Your task to perform on an android device: Clear the shopping cart on ebay. Search for duracell triple a on ebay, select the first entry, add it to the cart, then select checkout. Image 0: 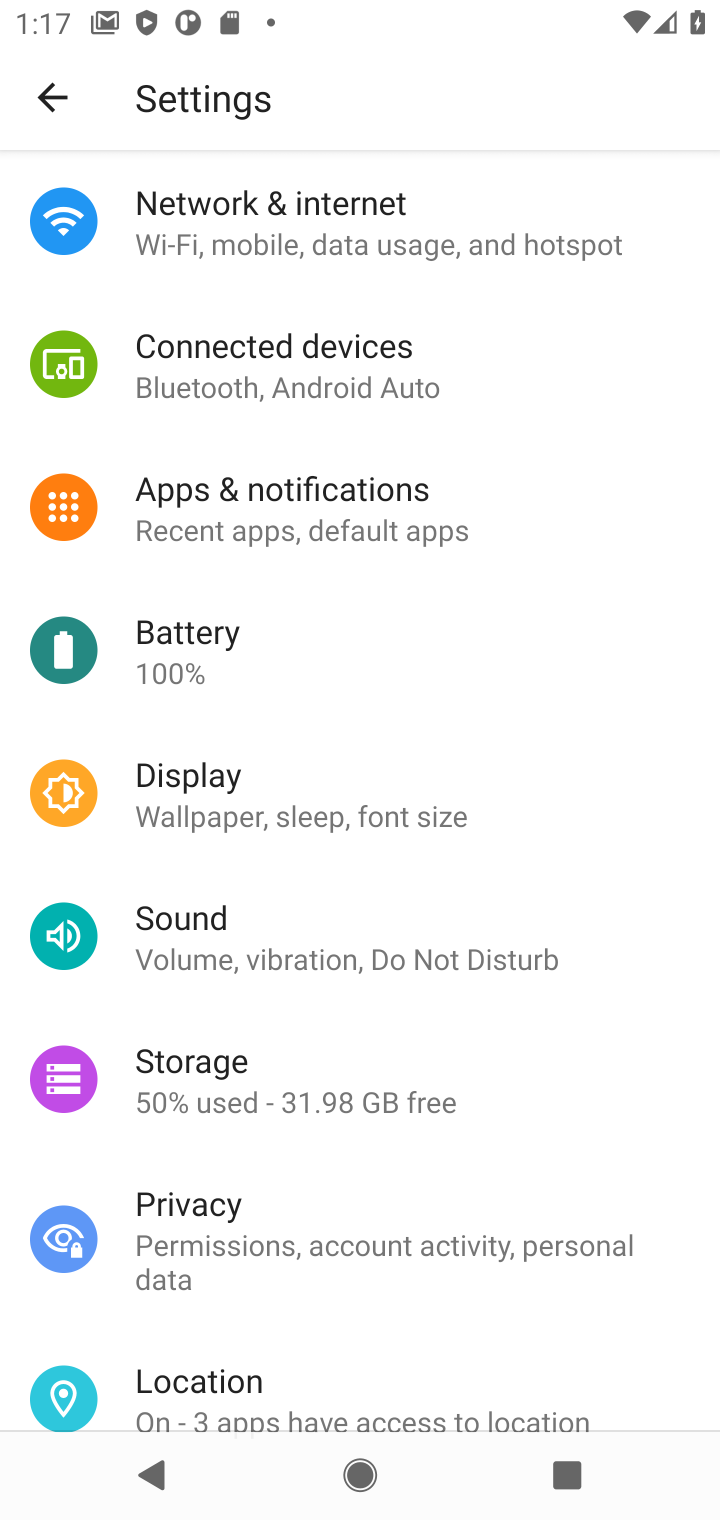
Step 0: press home button
Your task to perform on an android device: Clear the shopping cart on ebay. Search for duracell triple a on ebay, select the first entry, add it to the cart, then select checkout. Image 1: 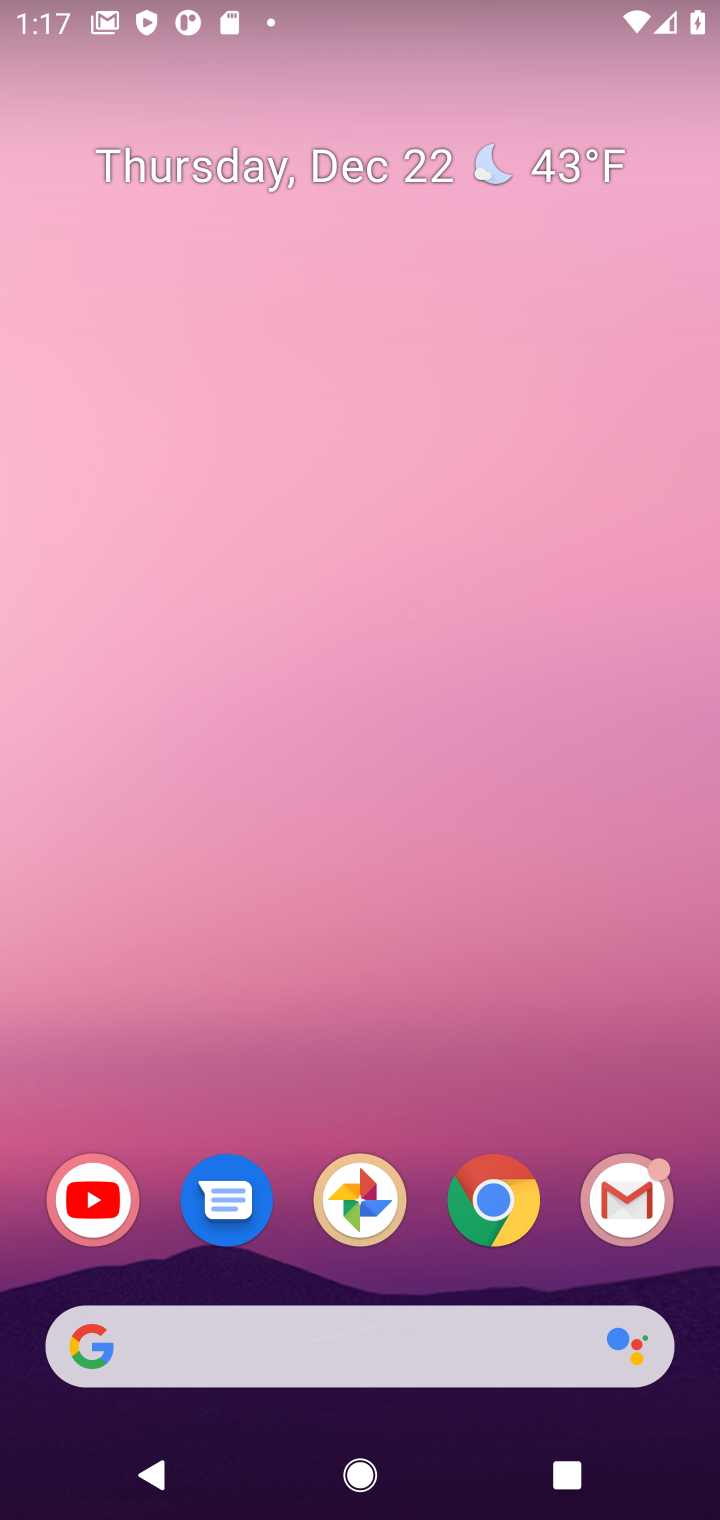
Step 1: click (486, 1217)
Your task to perform on an android device: Clear the shopping cart on ebay. Search for duracell triple a on ebay, select the first entry, add it to the cart, then select checkout. Image 2: 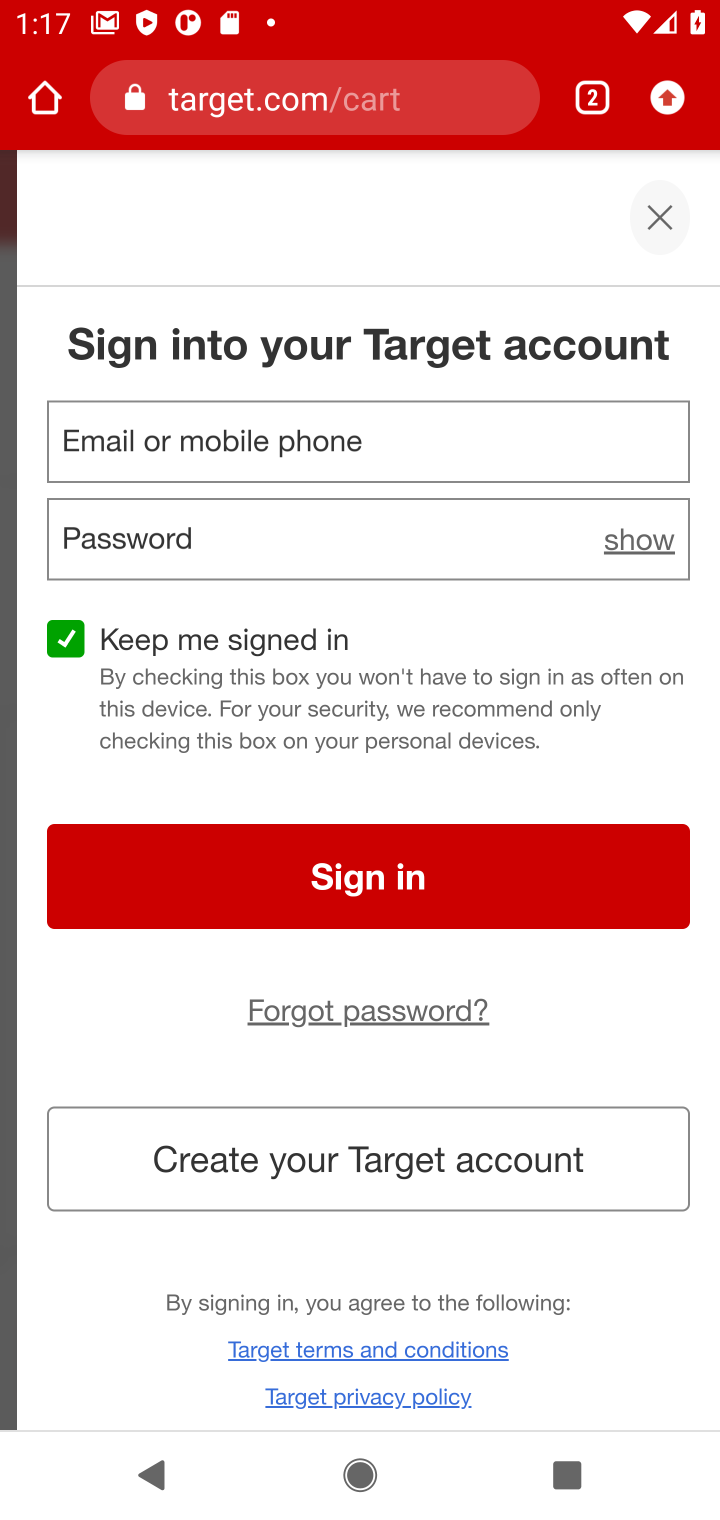
Step 2: click (264, 110)
Your task to perform on an android device: Clear the shopping cart on ebay. Search for duracell triple a on ebay, select the first entry, add it to the cart, then select checkout. Image 3: 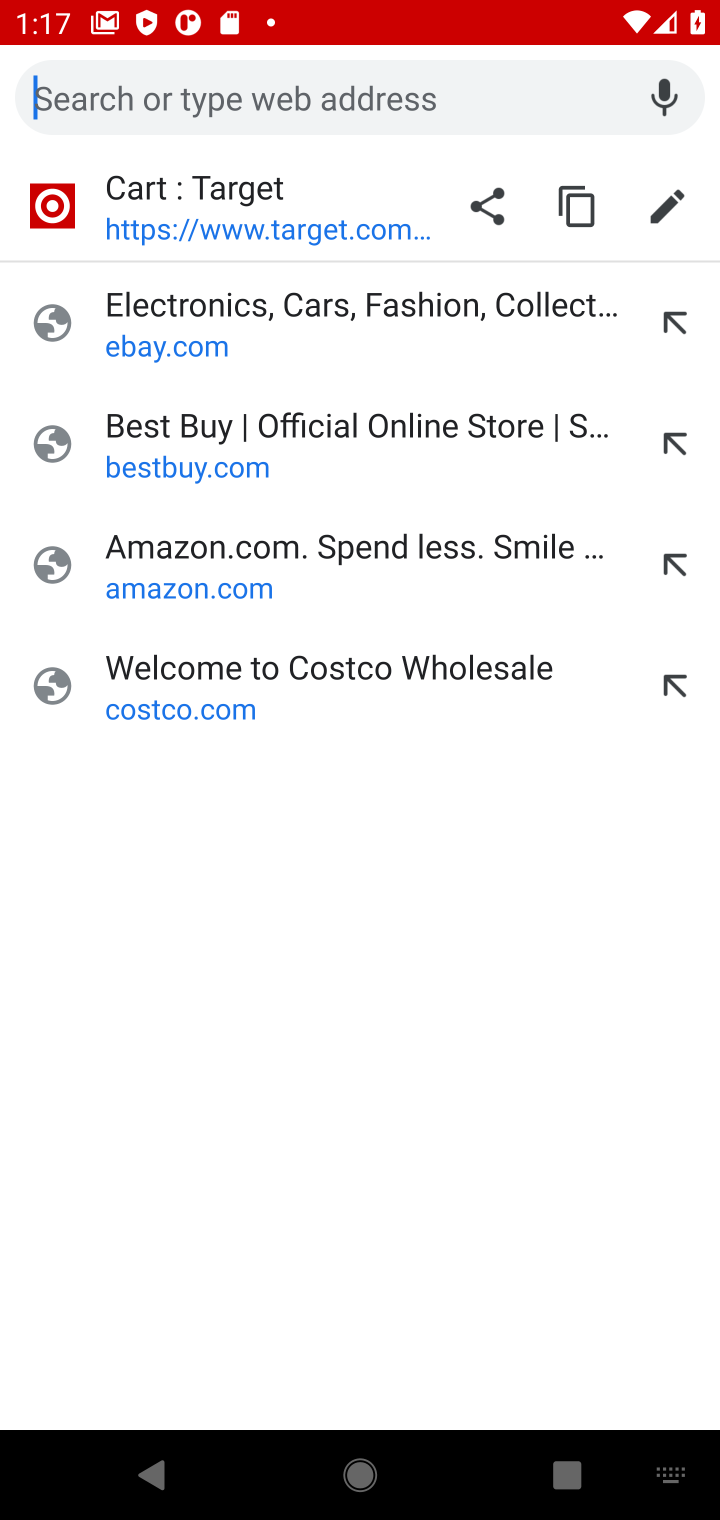
Step 3: click (151, 328)
Your task to perform on an android device: Clear the shopping cart on ebay. Search for duracell triple a on ebay, select the first entry, add it to the cart, then select checkout. Image 4: 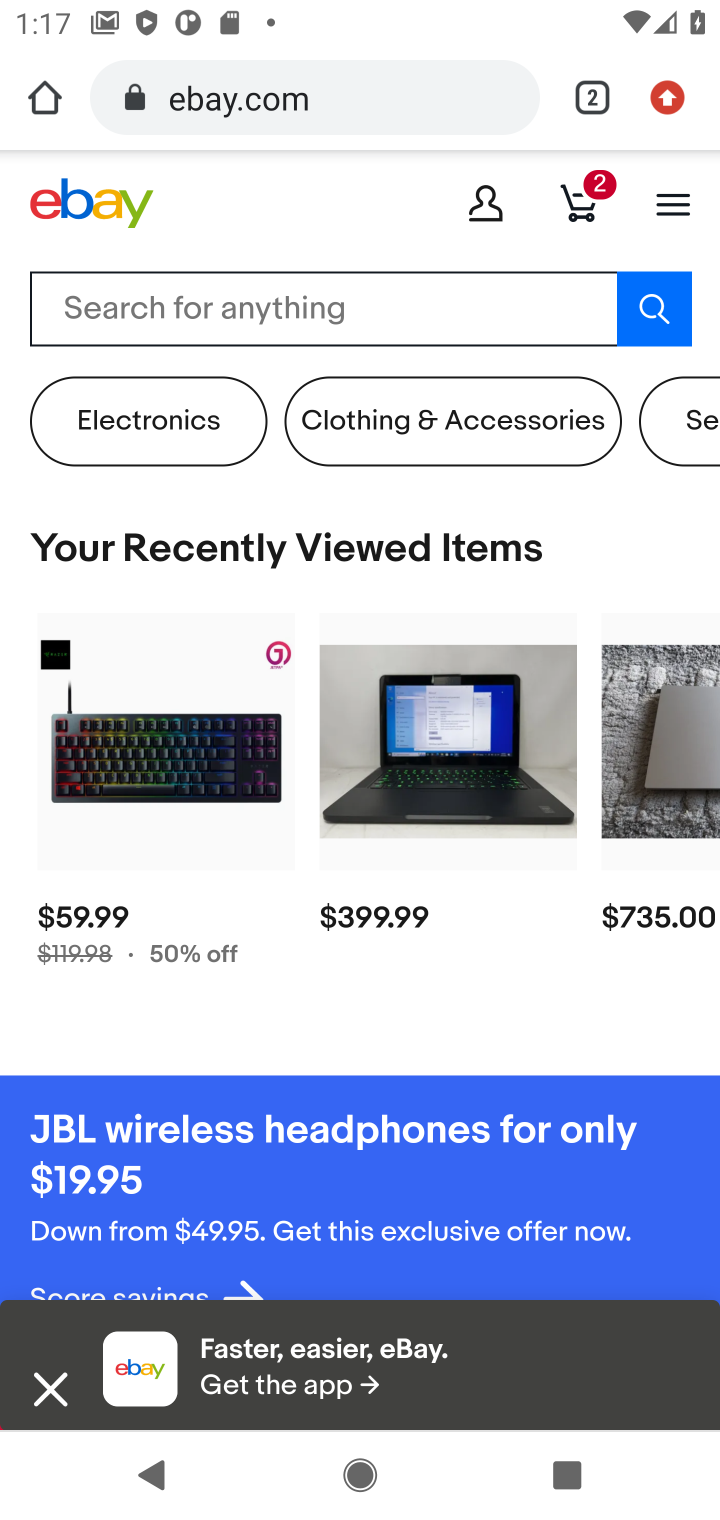
Step 4: click (589, 213)
Your task to perform on an android device: Clear the shopping cart on ebay. Search for duracell triple a on ebay, select the first entry, add it to the cart, then select checkout. Image 5: 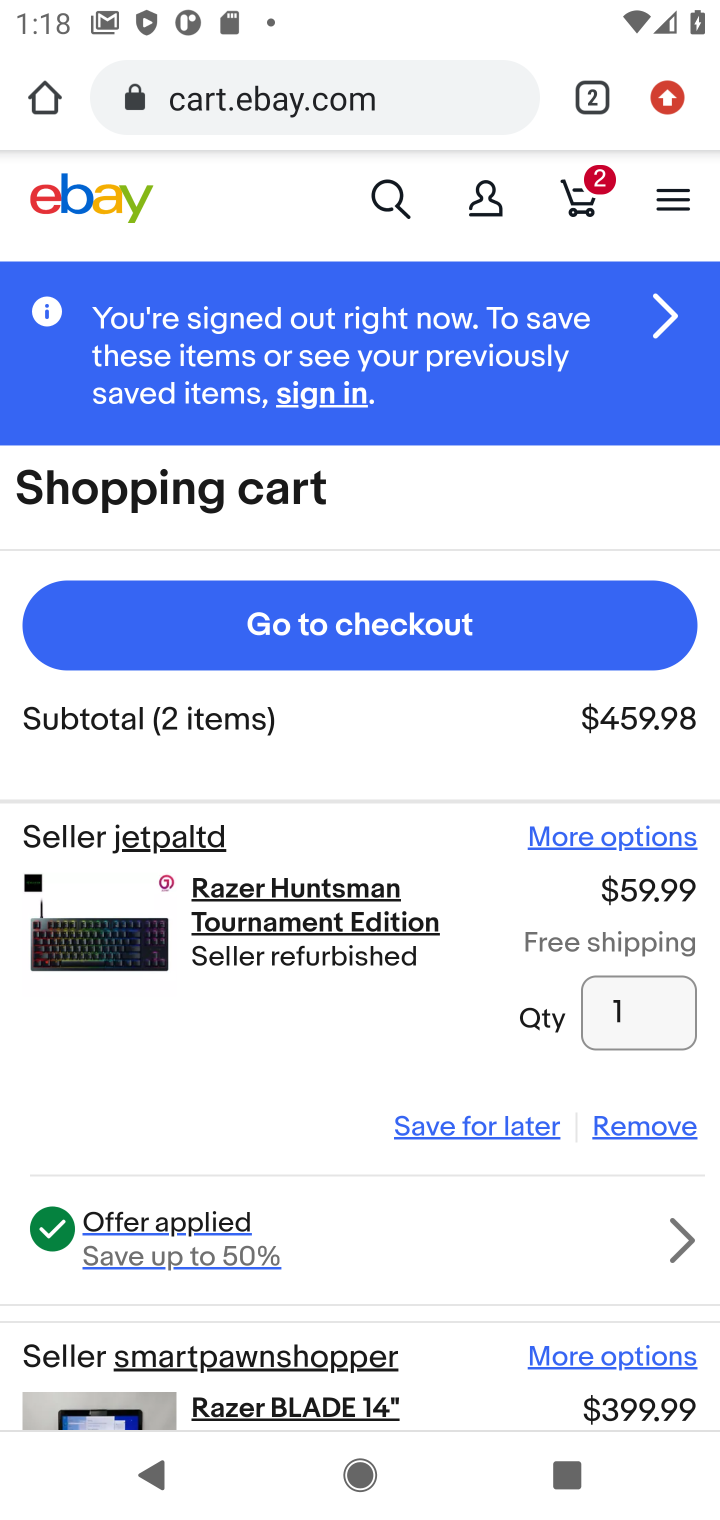
Step 5: click (615, 1125)
Your task to perform on an android device: Clear the shopping cart on ebay. Search for duracell triple a on ebay, select the first entry, add it to the cart, then select checkout. Image 6: 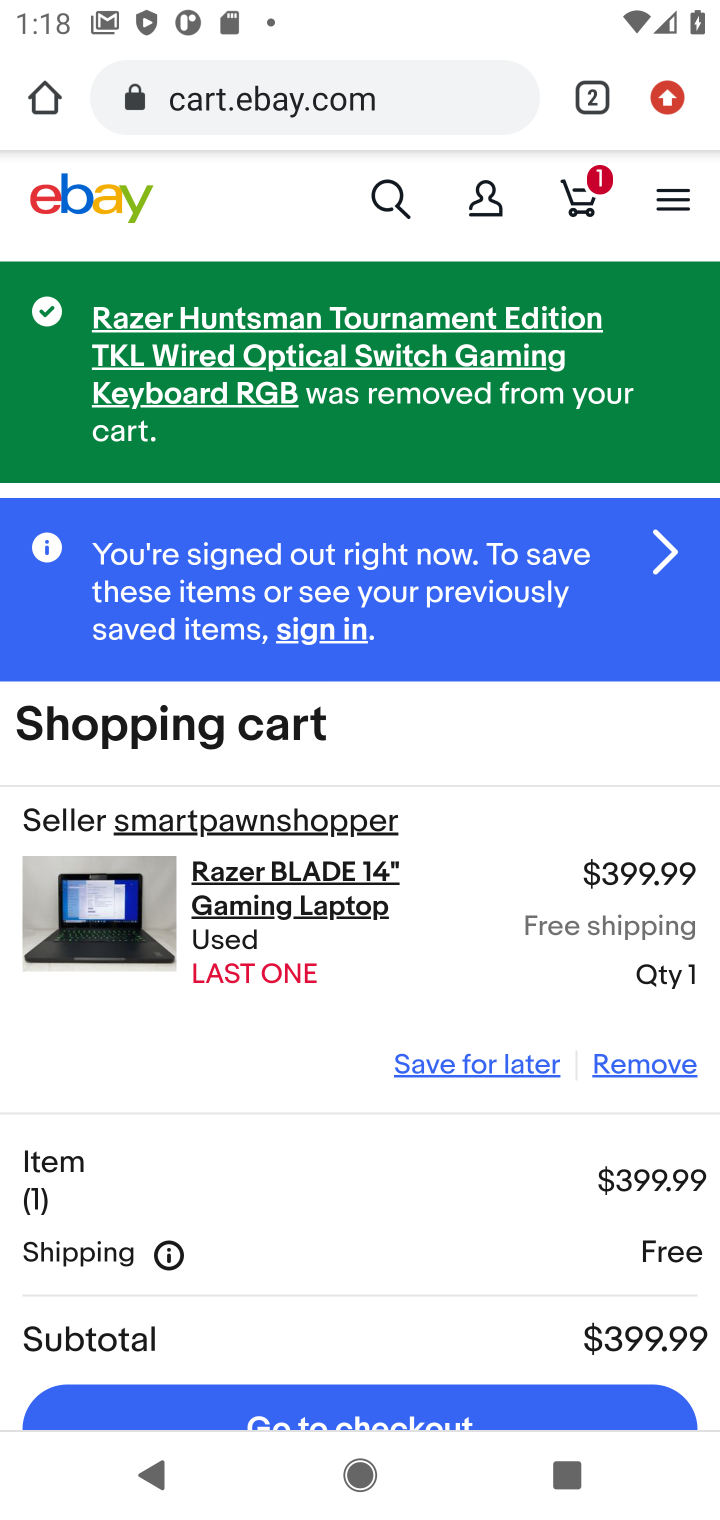
Step 6: click (630, 1071)
Your task to perform on an android device: Clear the shopping cart on ebay. Search for duracell triple a on ebay, select the first entry, add it to the cart, then select checkout. Image 7: 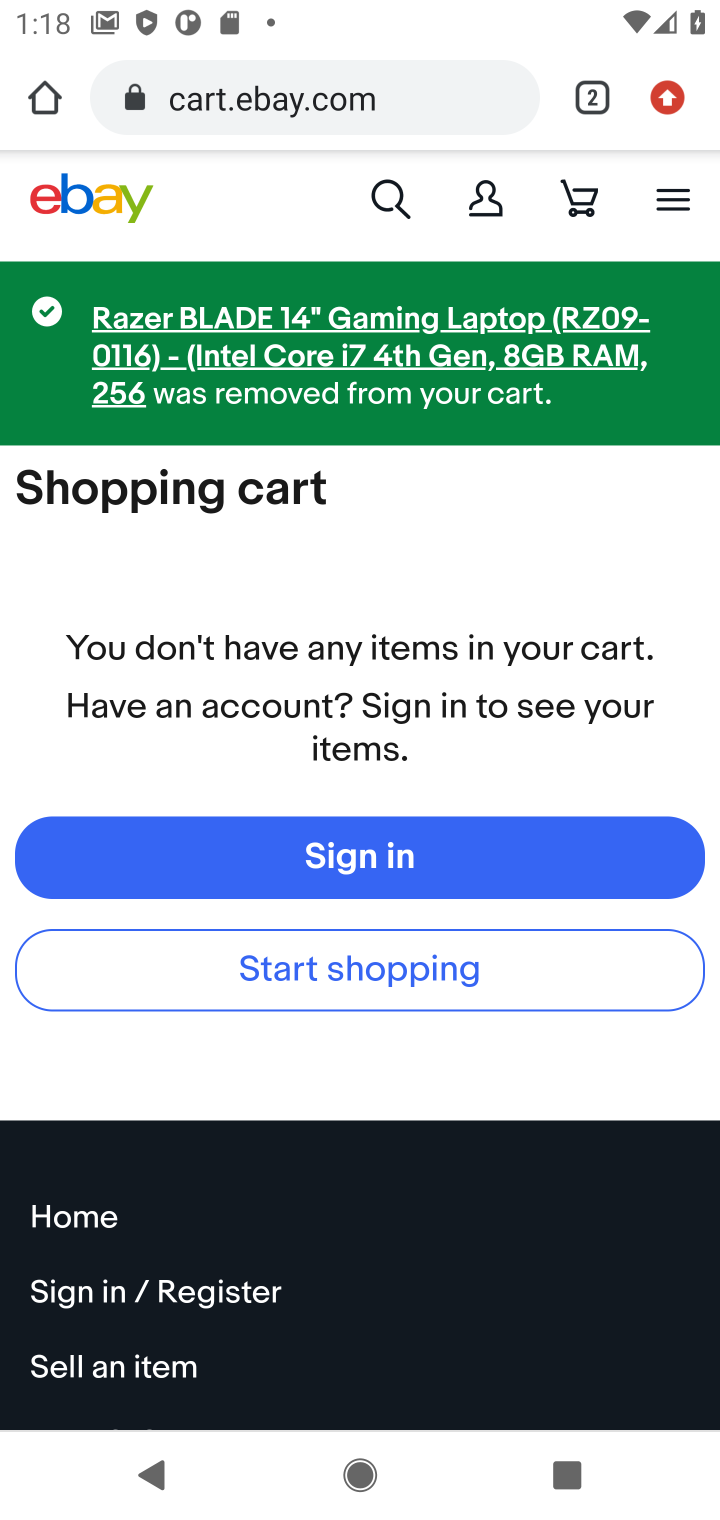
Step 7: click (392, 204)
Your task to perform on an android device: Clear the shopping cart on ebay. Search for duracell triple a on ebay, select the first entry, add it to the cart, then select checkout. Image 8: 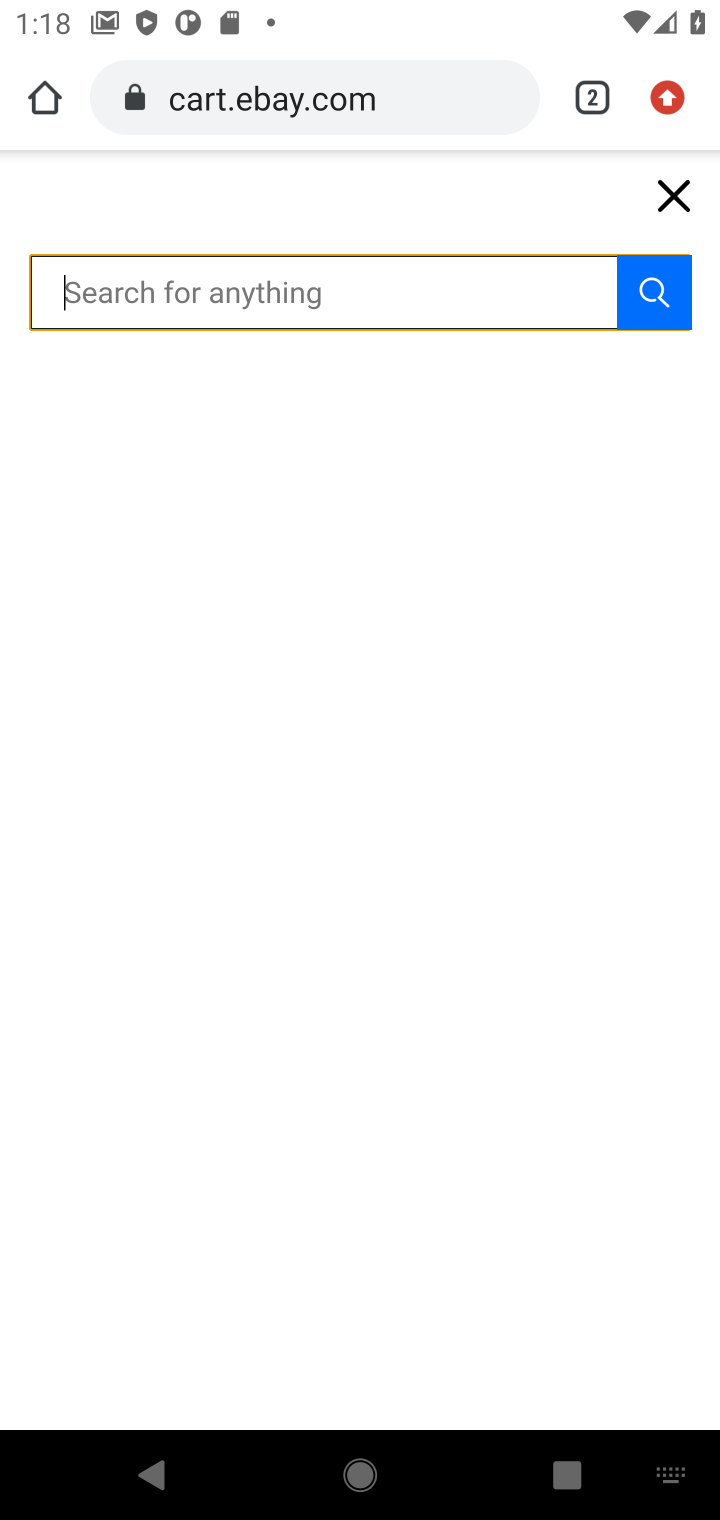
Step 8: type "duracell triple a"
Your task to perform on an android device: Clear the shopping cart on ebay. Search for duracell triple a on ebay, select the first entry, add it to the cart, then select checkout. Image 9: 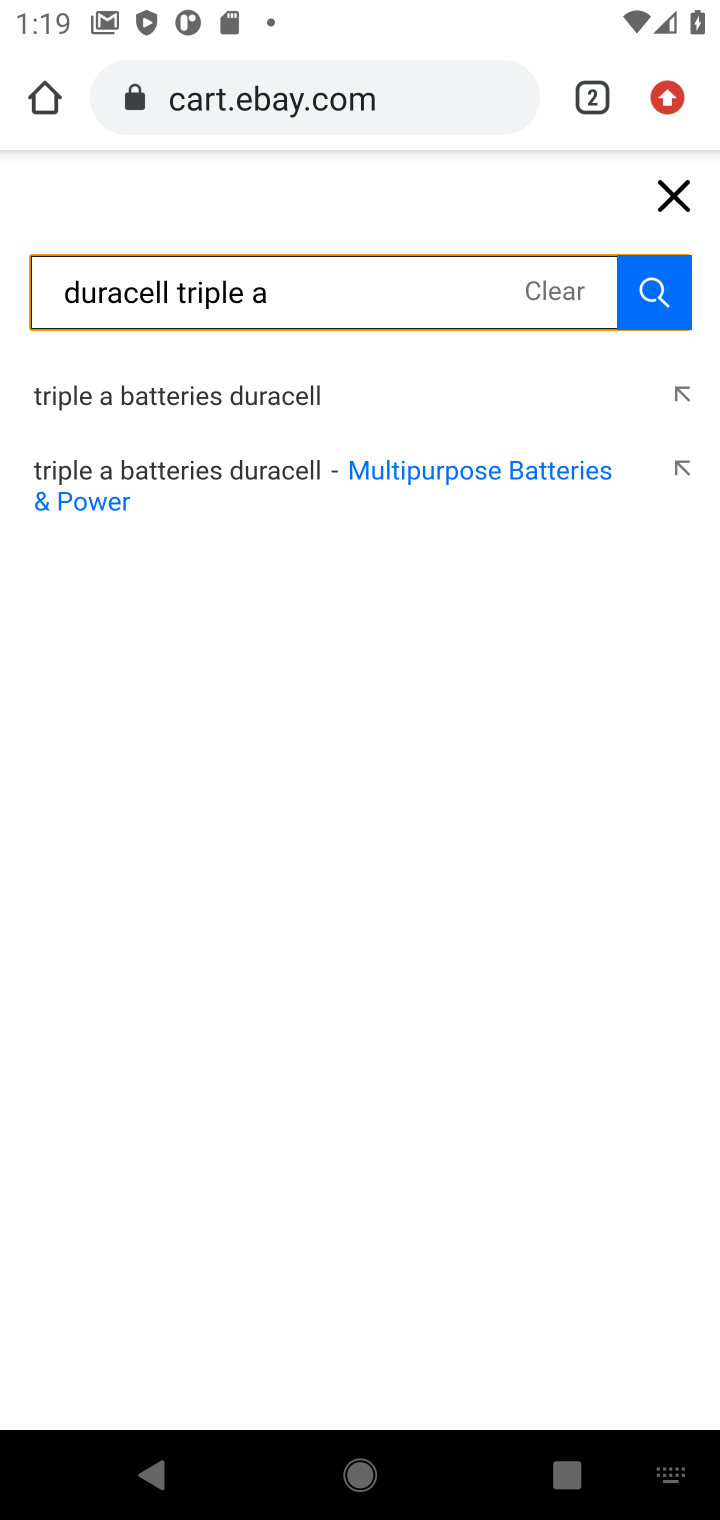
Step 9: click (654, 298)
Your task to perform on an android device: Clear the shopping cart on ebay. Search for duracell triple a on ebay, select the first entry, add it to the cart, then select checkout. Image 10: 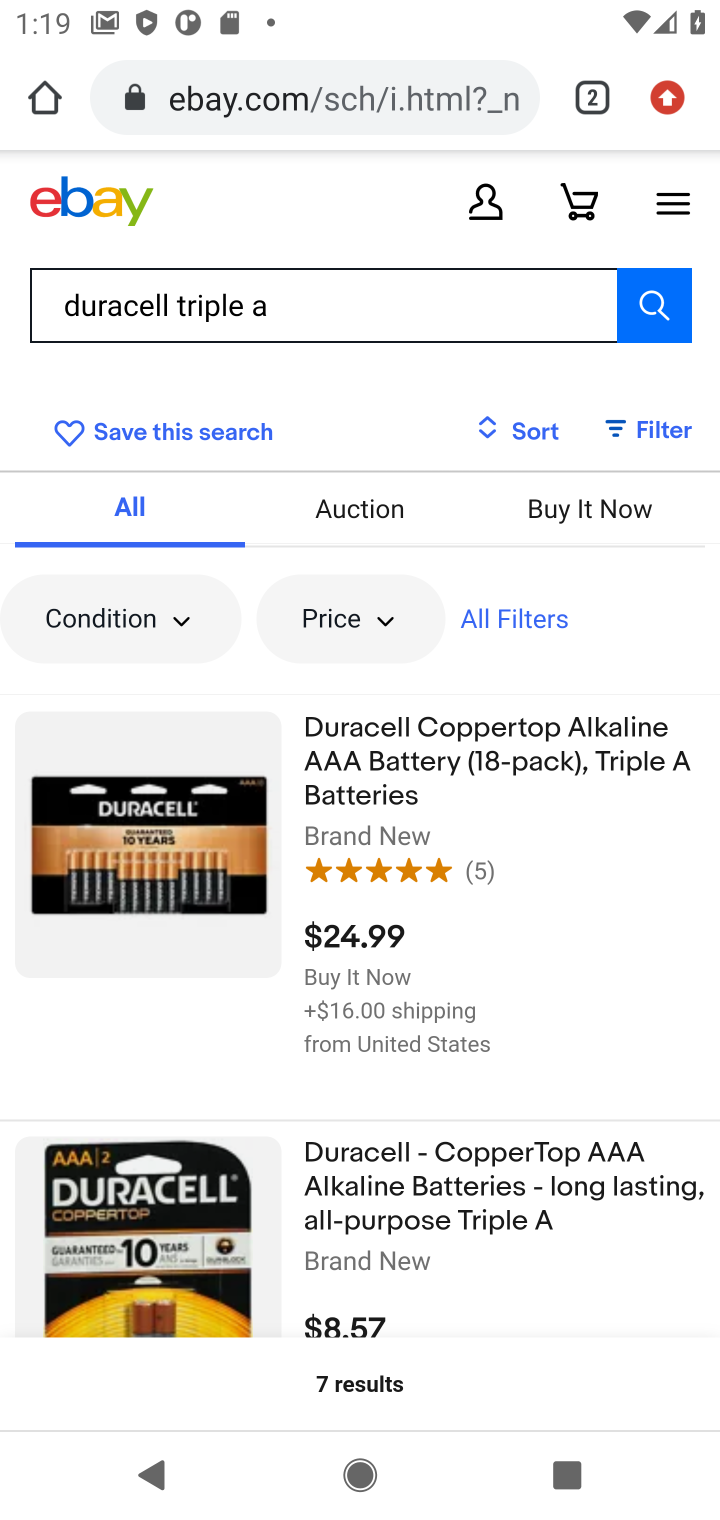
Step 10: click (354, 759)
Your task to perform on an android device: Clear the shopping cart on ebay. Search for duracell triple a on ebay, select the first entry, add it to the cart, then select checkout. Image 11: 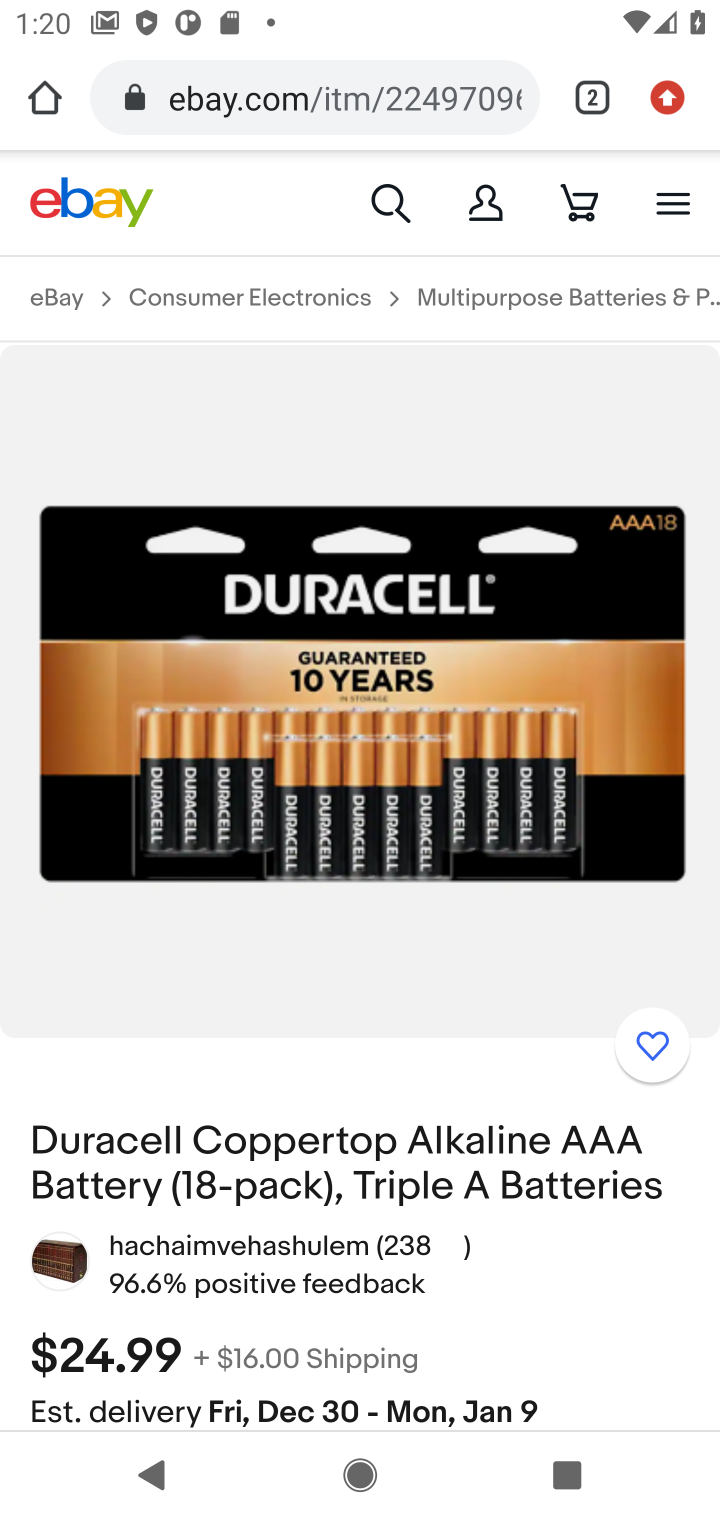
Step 11: drag from (310, 962) to (388, 362)
Your task to perform on an android device: Clear the shopping cart on ebay. Search for duracell triple a on ebay, select the first entry, add it to the cart, then select checkout. Image 12: 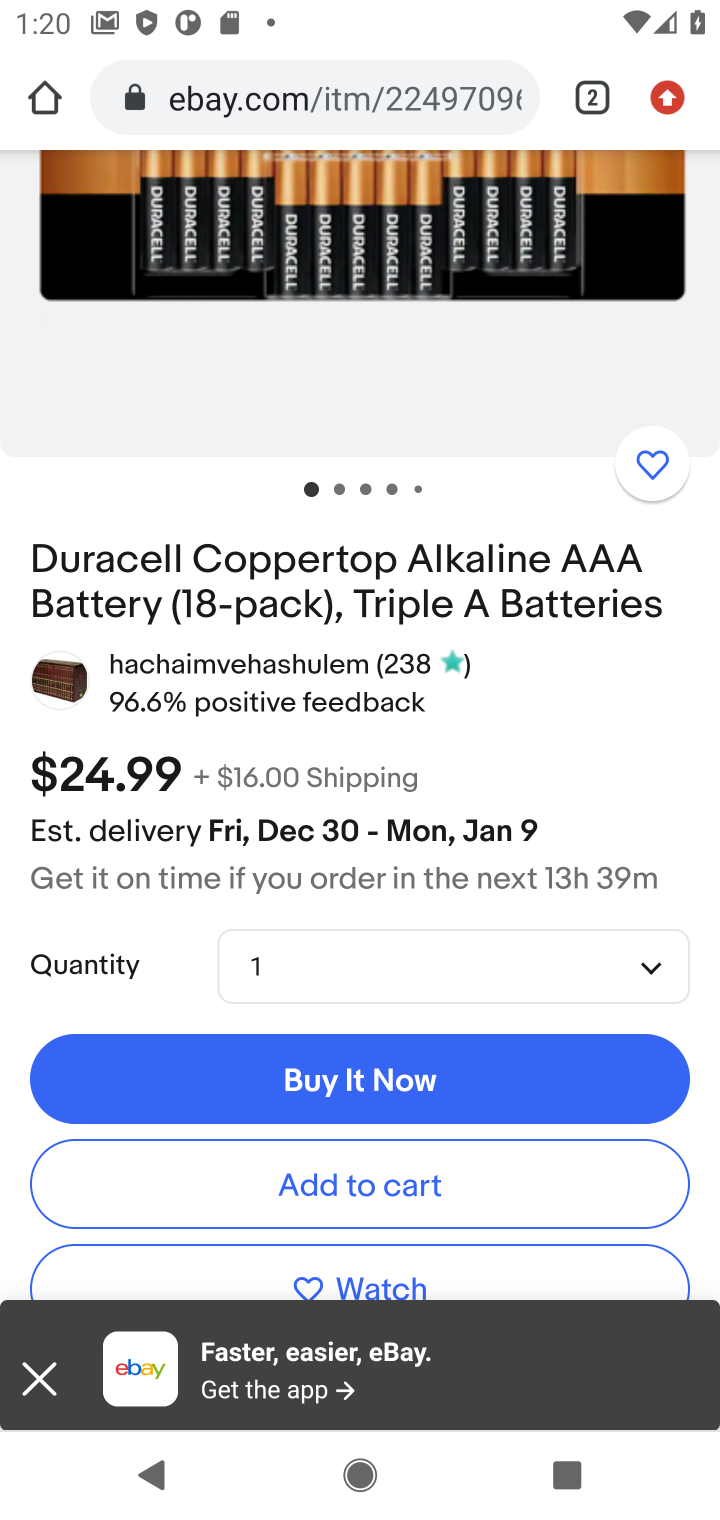
Step 12: click (332, 1171)
Your task to perform on an android device: Clear the shopping cart on ebay. Search for duracell triple a on ebay, select the first entry, add it to the cart, then select checkout. Image 13: 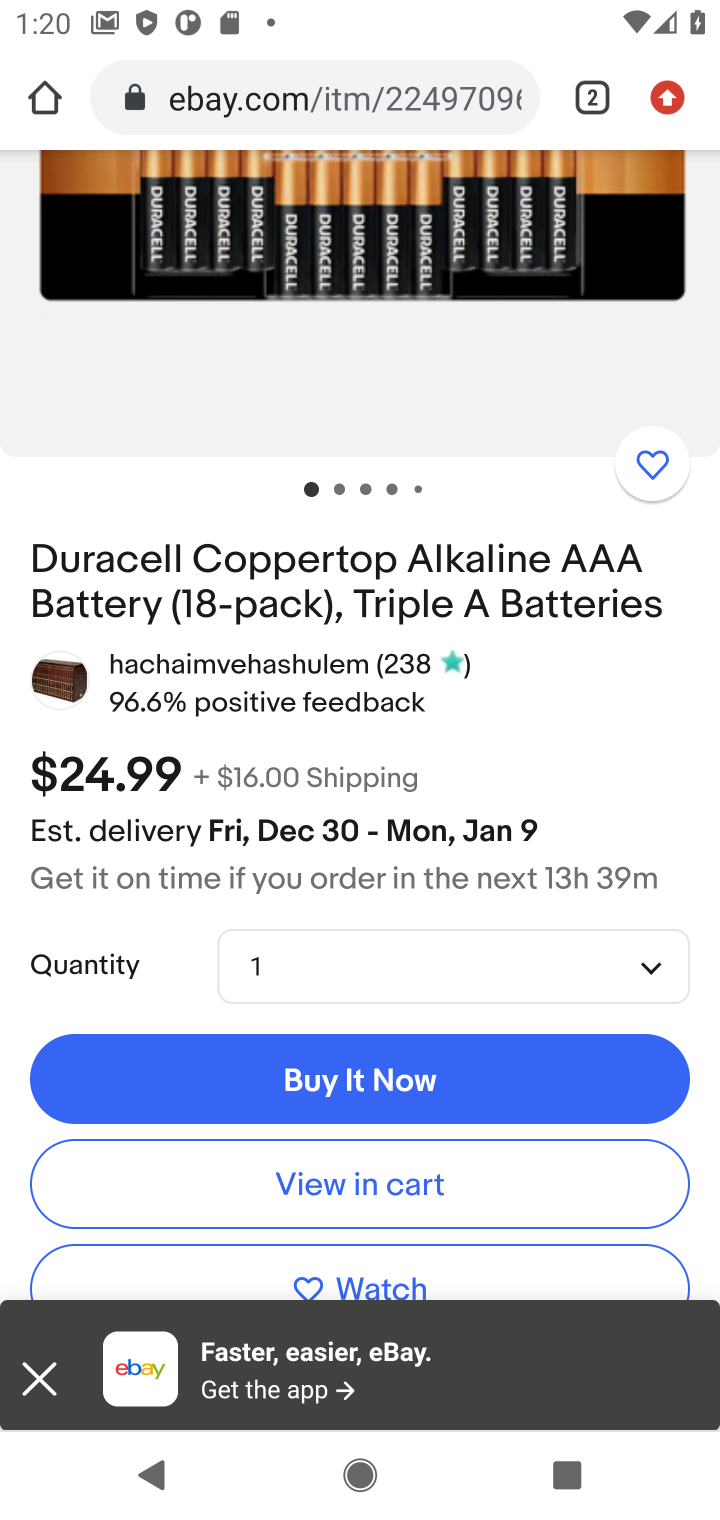
Step 13: click (334, 1187)
Your task to perform on an android device: Clear the shopping cart on ebay. Search for duracell triple a on ebay, select the first entry, add it to the cart, then select checkout. Image 14: 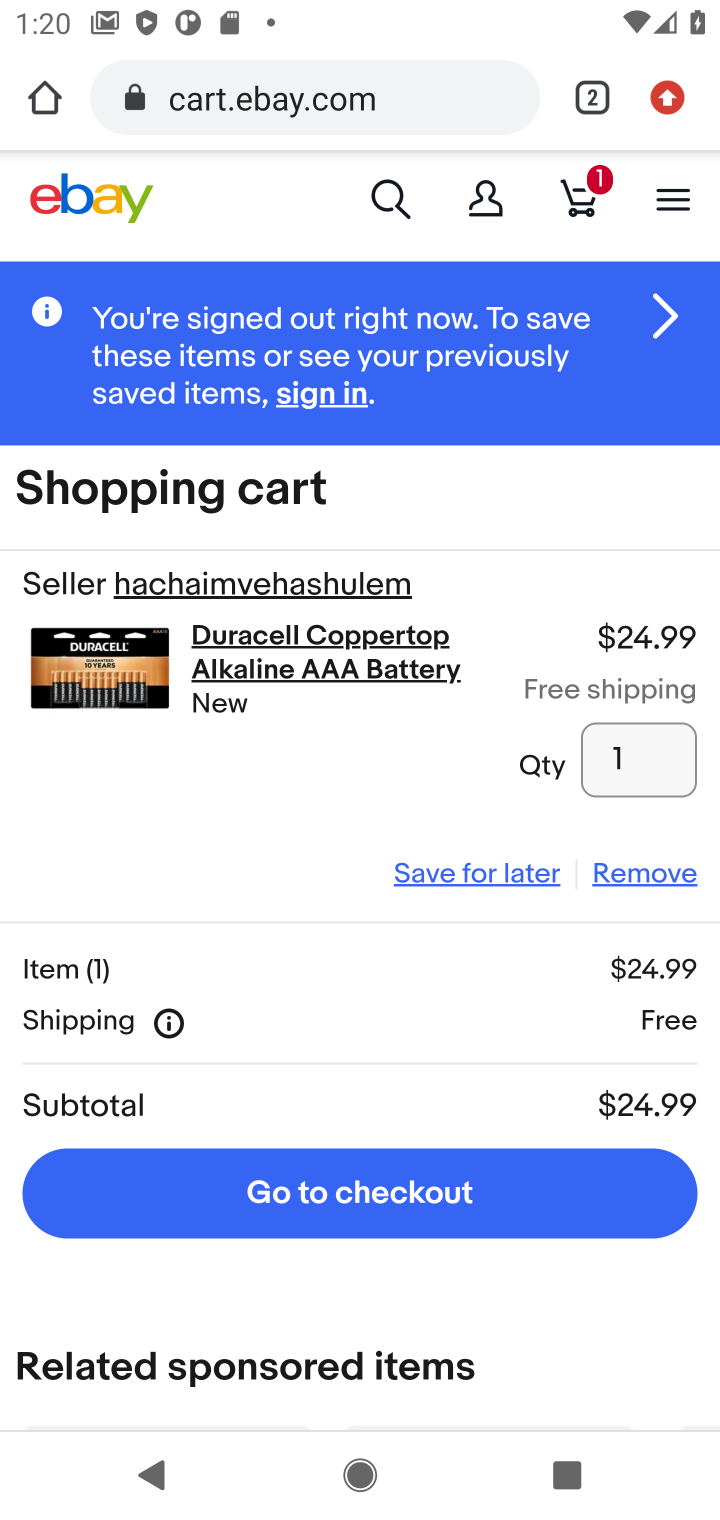
Step 14: click (334, 1189)
Your task to perform on an android device: Clear the shopping cart on ebay. Search for duracell triple a on ebay, select the first entry, add it to the cart, then select checkout. Image 15: 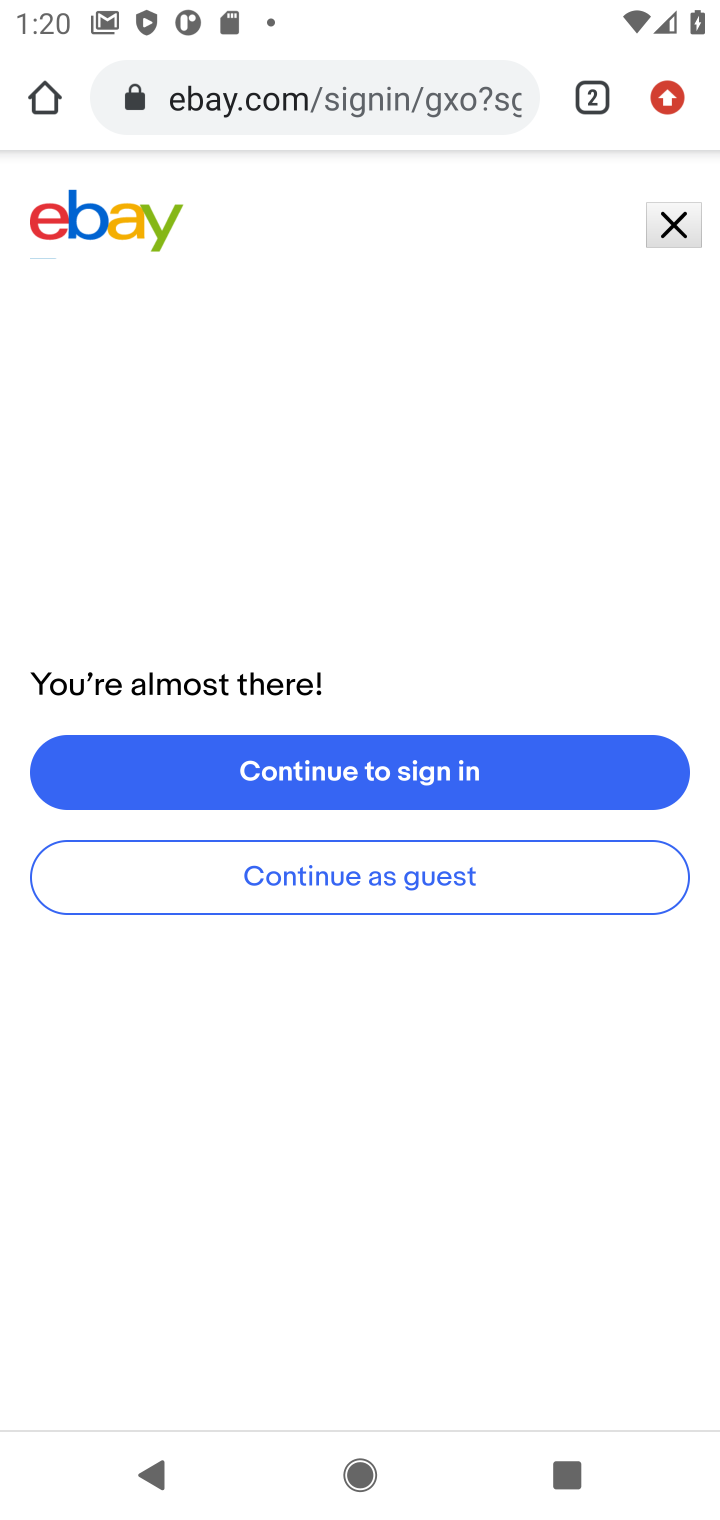
Step 15: task complete